Your task to perform on an android device: turn off data saver in the chrome app Image 0: 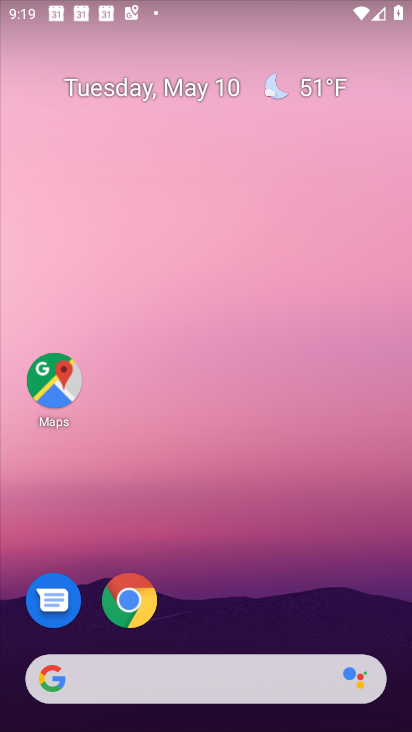
Step 0: click (131, 601)
Your task to perform on an android device: turn off data saver in the chrome app Image 1: 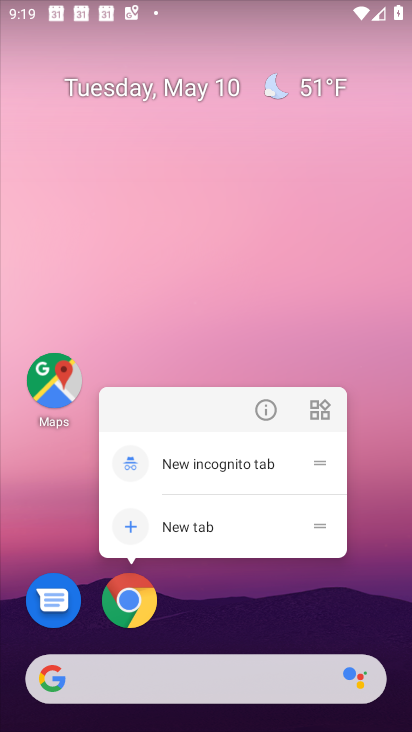
Step 1: click (131, 599)
Your task to perform on an android device: turn off data saver in the chrome app Image 2: 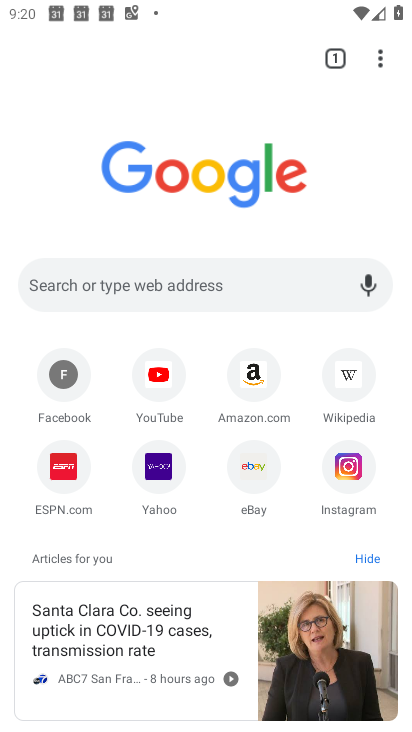
Step 2: click (385, 52)
Your task to perform on an android device: turn off data saver in the chrome app Image 3: 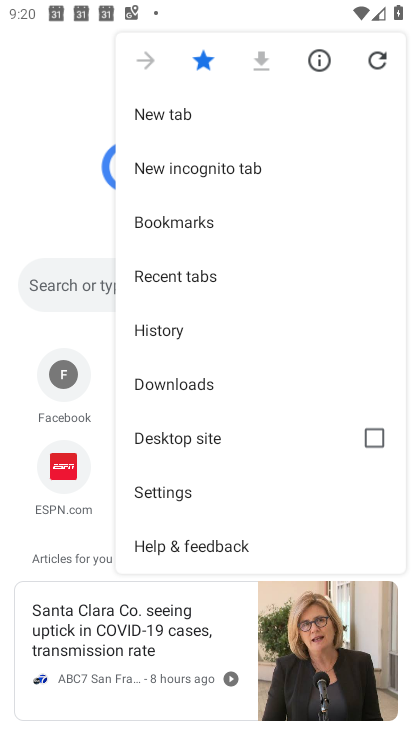
Step 3: click (179, 495)
Your task to perform on an android device: turn off data saver in the chrome app Image 4: 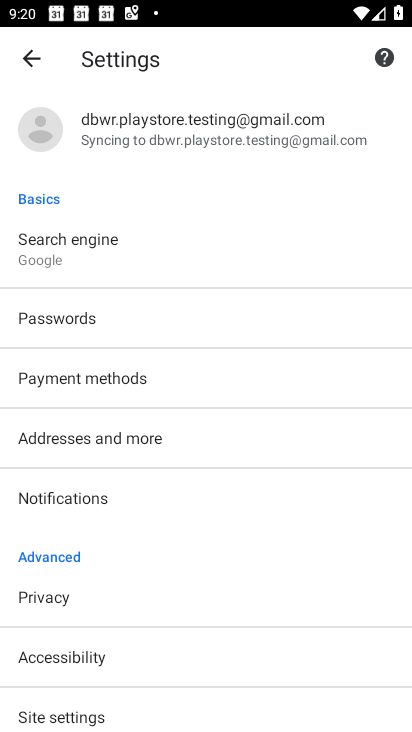
Step 4: drag from (203, 535) to (221, 311)
Your task to perform on an android device: turn off data saver in the chrome app Image 5: 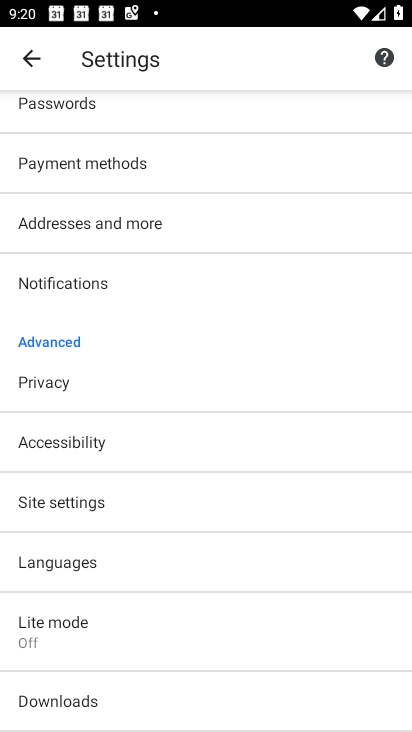
Step 5: click (89, 636)
Your task to perform on an android device: turn off data saver in the chrome app Image 6: 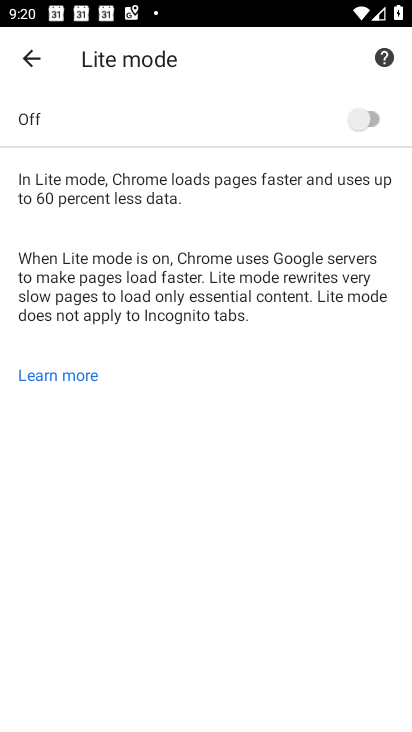
Step 6: task complete